Your task to perform on an android device: Open privacy settings Image 0: 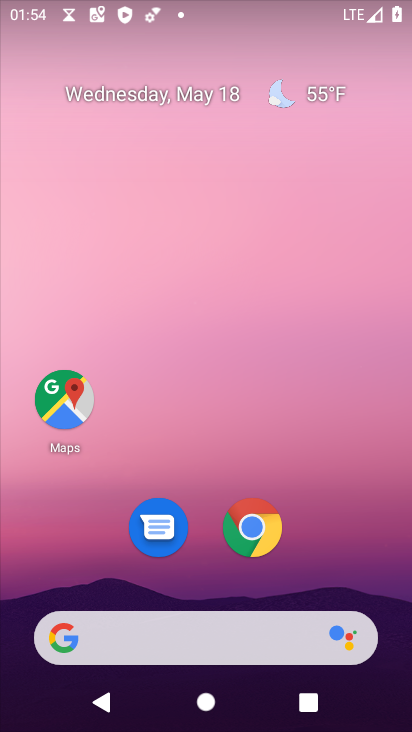
Step 0: drag from (319, 579) to (237, 163)
Your task to perform on an android device: Open privacy settings Image 1: 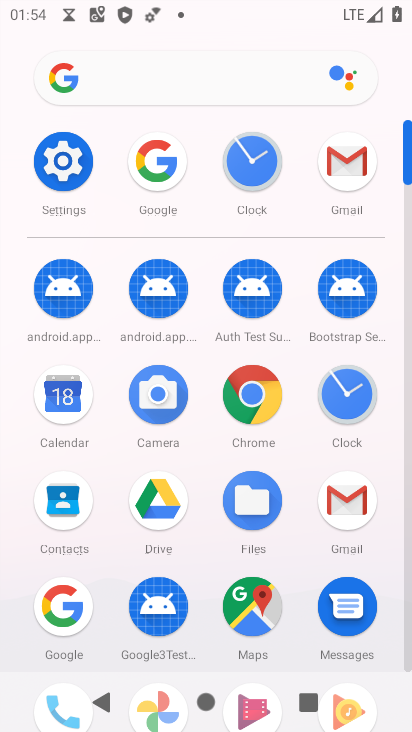
Step 1: click (75, 183)
Your task to perform on an android device: Open privacy settings Image 2: 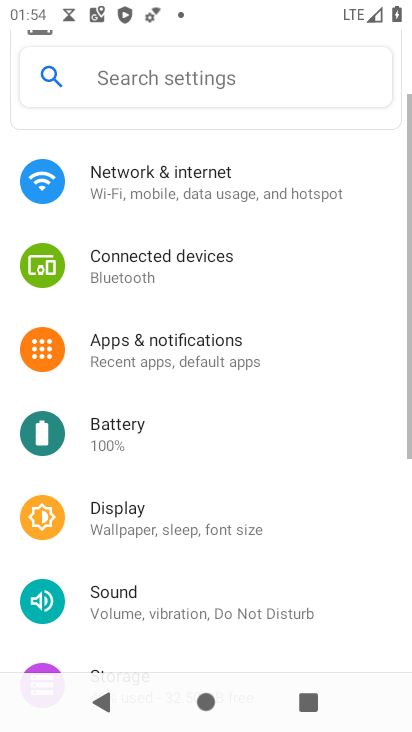
Step 2: drag from (292, 544) to (261, 224)
Your task to perform on an android device: Open privacy settings Image 3: 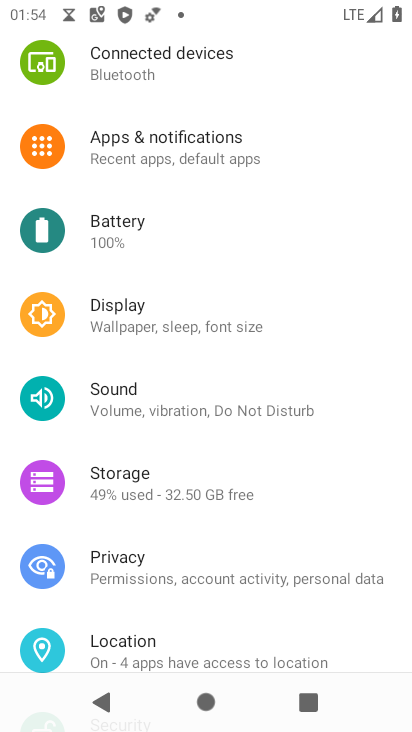
Step 3: drag from (174, 578) to (185, 352)
Your task to perform on an android device: Open privacy settings Image 4: 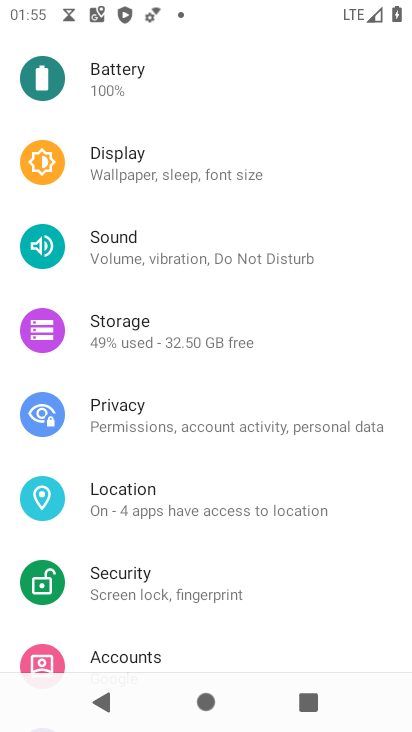
Step 4: click (178, 420)
Your task to perform on an android device: Open privacy settings Image 5: 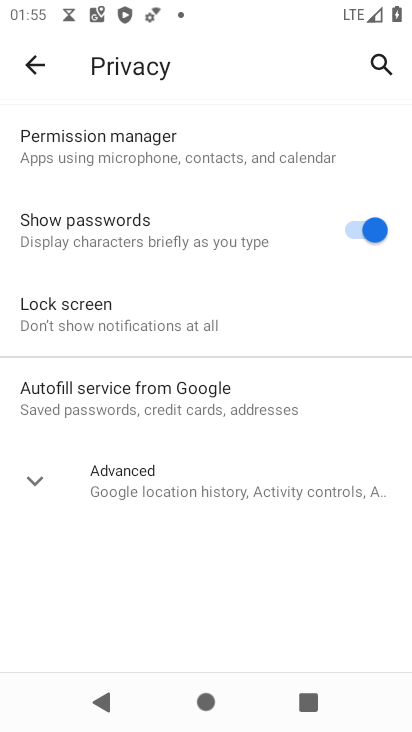
Step 5: task complete